Your task to perform on an android device: turn on airplane mode Image 0: 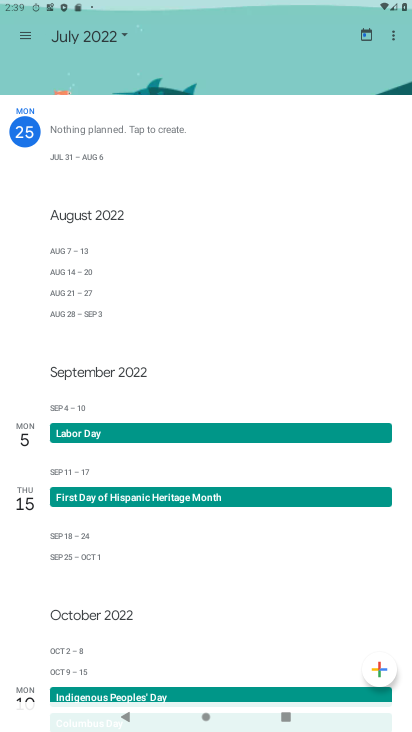
Step 0: press home button
Your task to perform on an android device: turn on airplane mode Image 1: 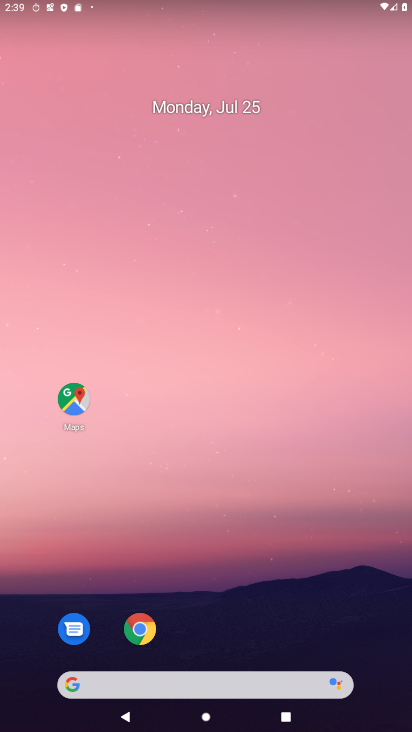
Step 1: drag from (48, 686) to (260, 9)
Your task to perform on an android device: turn on airplane mode Image 2: 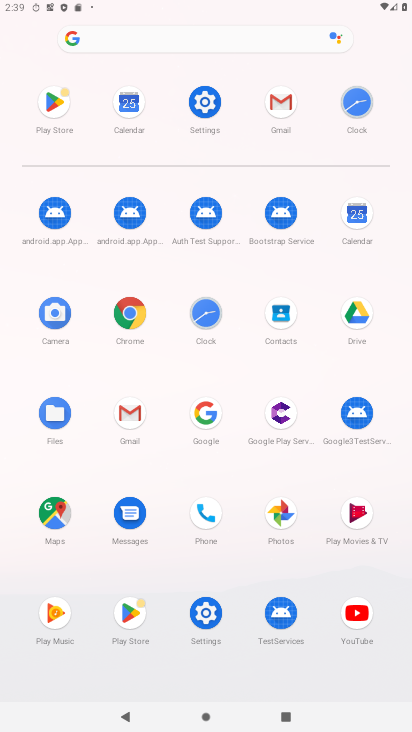
Step 2: click (207, 632)
Your task to perform on an android device: turn on airplane mode Image 3: 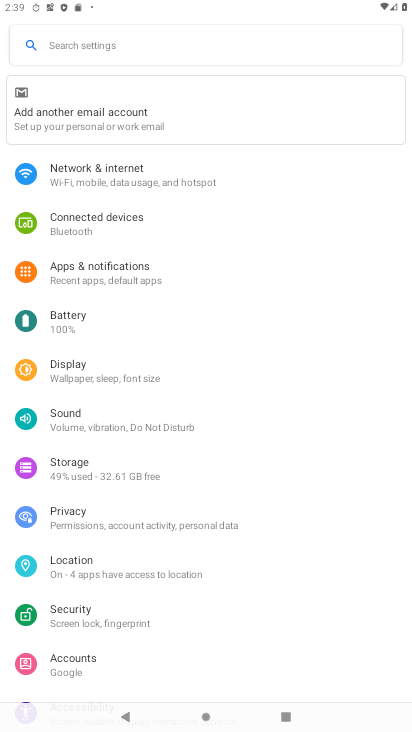
Step 3: click (92, 171)
Your task to perform on an android device: turn on airplane mode Image 4: 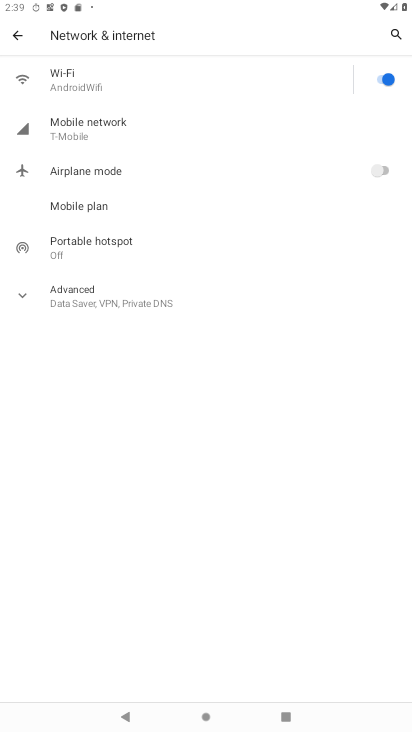
Step 4: click (91, 169)
Your task to perform on an android device: turn on airplane mode Image 5: 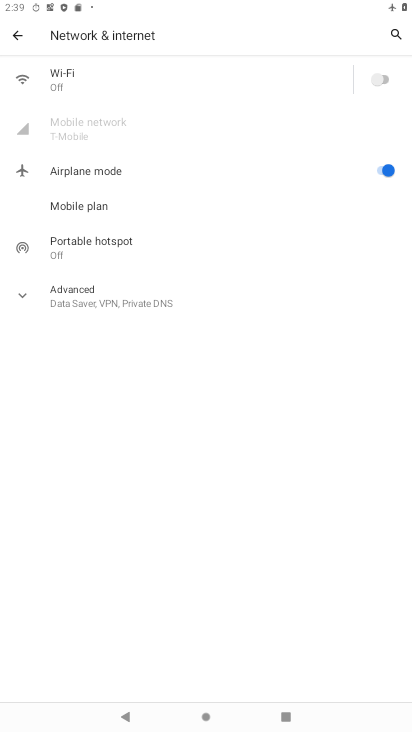
Step 5: task complete